Your task to perform on an android device: change the upload size in google photos Image 0: 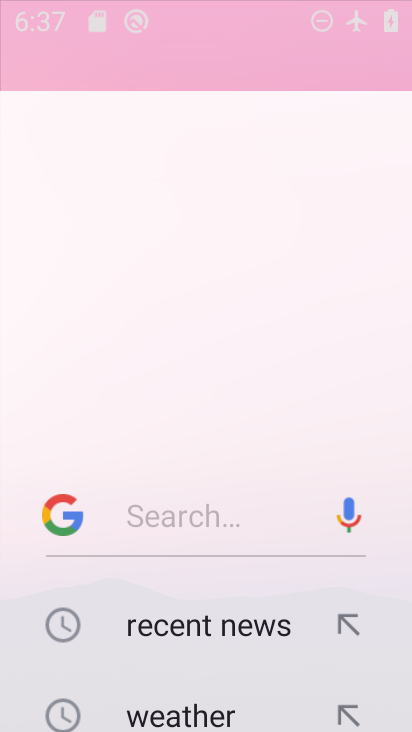
Step 0: drag from (207, 545) to (225, 151)
Your task to perform on an android device: change the upload size in google photos Image 1: 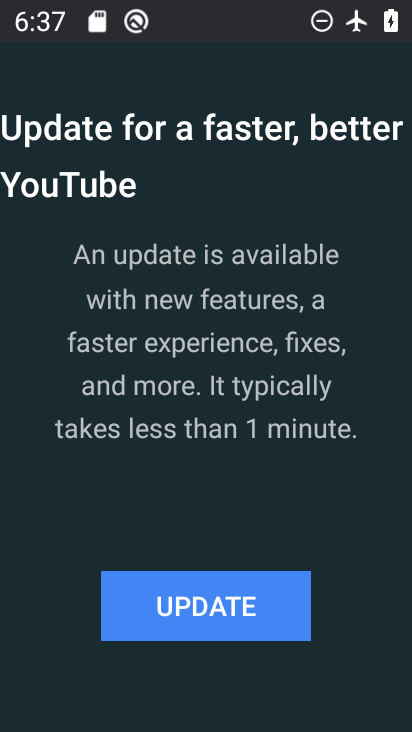
Step 1: press home button
Your task to perform on an android device: change the upload size in google photos Image 2: 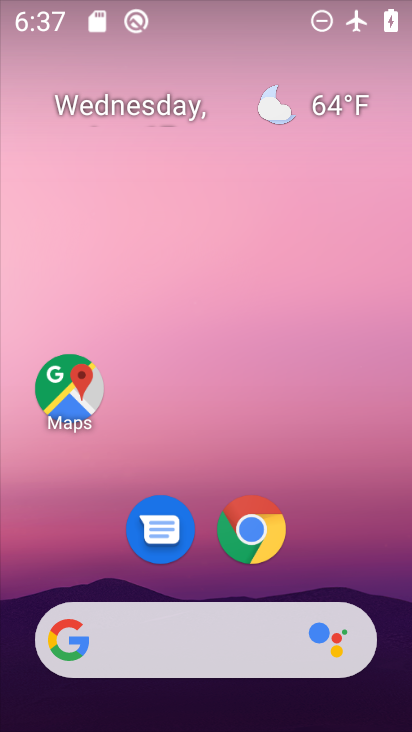
Step 2: drag from (198, 580) to (247, 5)
Your task to perform on an android device: change the upload size in google photos Image 3: 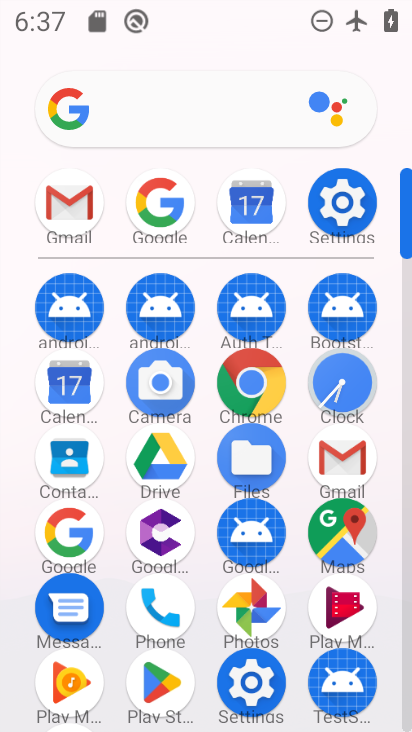
Step 3: click (250, 602)
Your task to perform on an android device: change the upload size in google photos Image 4: 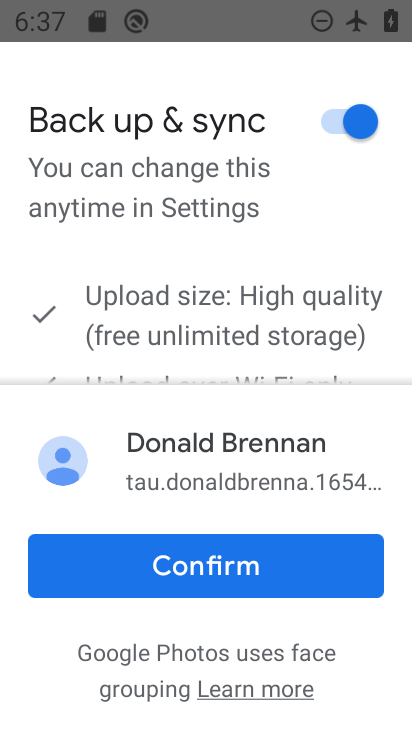
Step 4: click (227, 570)
Your task to perform on an android device: change the upload size in google photos Image 5: 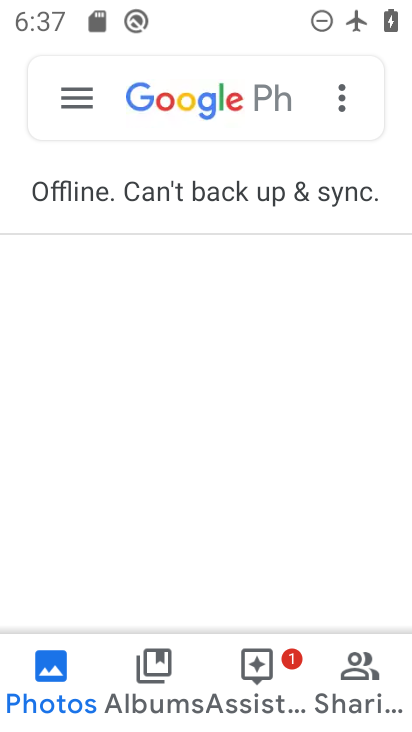
Step 5: click (74, 98)
Your task to perform on an android device: change the upload size in google photos Image 6: 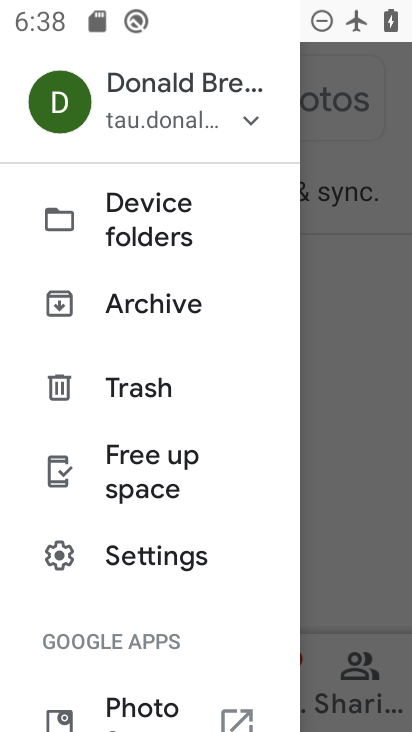
Step 6: click (150, 555)
Your task to perform on an android device: change the upload size in google photos Image 7: 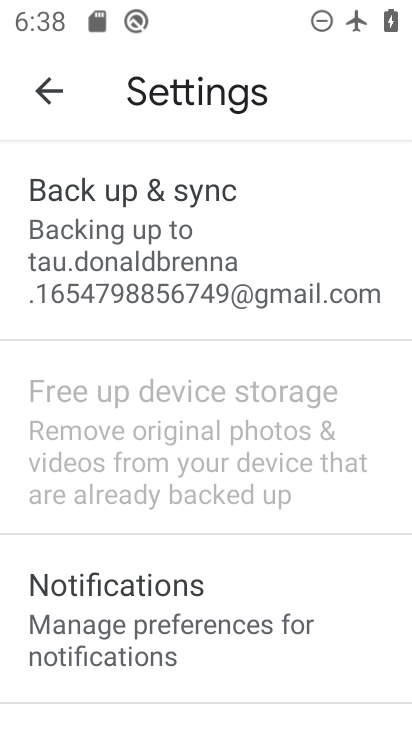
Step 7: click (103, 246)
Your task to perform on an android device: change the upload size in google photos Image 8: 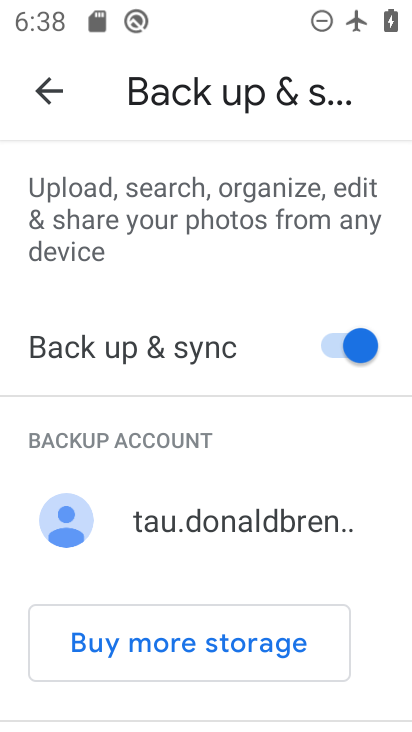
Step 8: drag from (142, 524) to (166, 322)
Your task to perform on an android device: change the upload size in google photos Image 9: 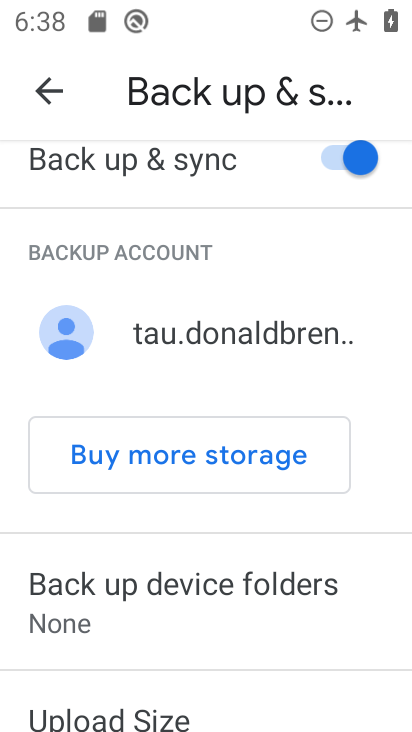
Step 9: drag from (164, 625) to (211, 324)
Your task to perform on an android device: change the upload size in google photos Image 10: 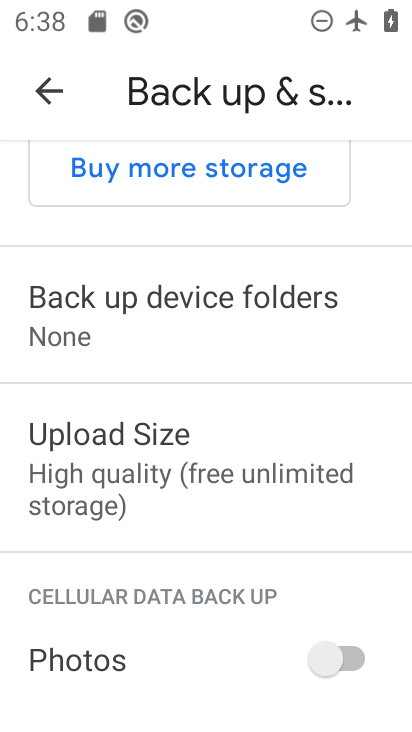
Step 10: click (102, 451)
Your task to perform on an android device: change the upload size in google photos Image 11: 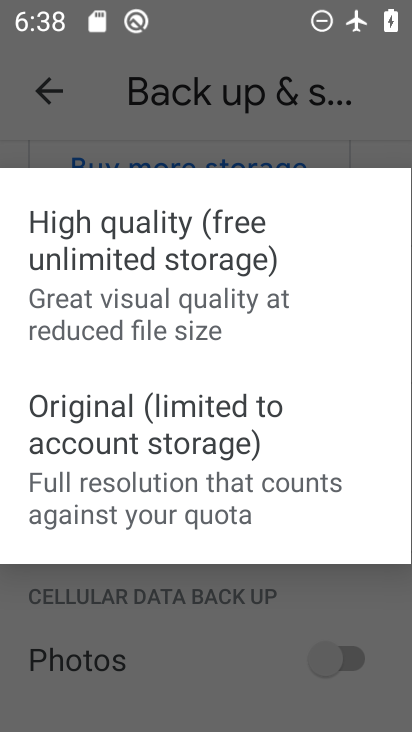
Step 11: click (120, 451)
Your task to perform on an android device: change the upload size in google photos Image 12: 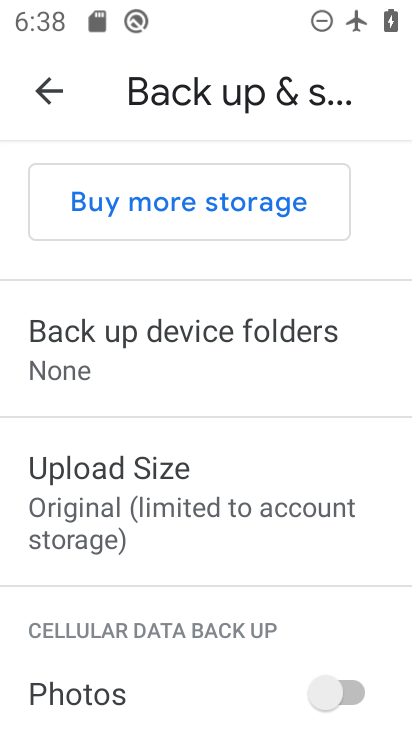
Step 12: task complete